Your task to perform on an android device: open app "Speedtest by Ookla" (install if not already installed) Image 0: 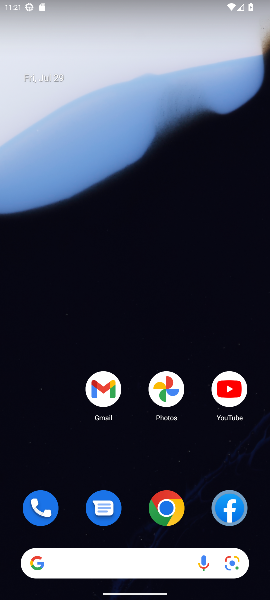
Step 0: drag from (93, 552) to (90, 96)
Your task to perform on an android device: open app "Speedtest by Ookla" (install if not already installed) Image 1: 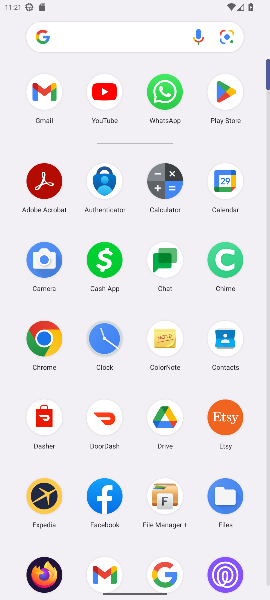
Step 1: click (223, 87)
Your task to perform on an android device: open app "Speedtest by Ookla" (install if not already installed) Image 2: 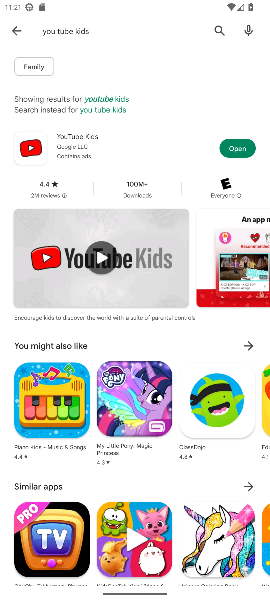
Step 2: click (216, 30)
Your task to perform on an android device: open app "Speedtest by Ookla" (install if not already installed) Image 3: 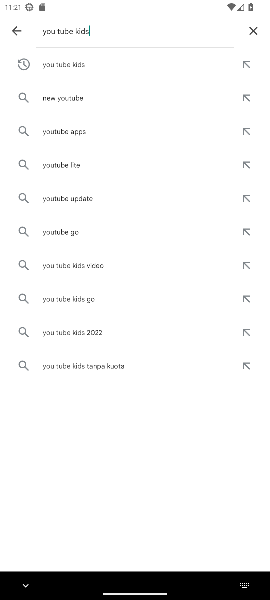
Step 3: click (250, 26)
Your task to perform on an android device: open app "Speedtest by Ookla" (install if not already installed) Image 4: 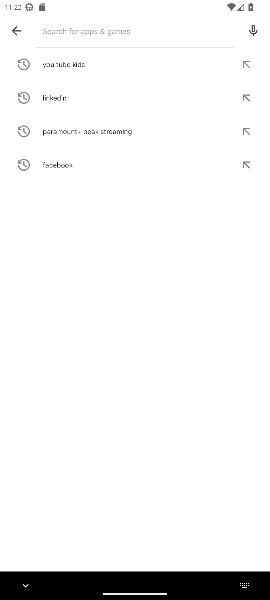
Step 4: type "speedtest by ookla"
Your task to perform on an android device: open app "Speedtest by Ookla" (install if not already installed) Image 5: 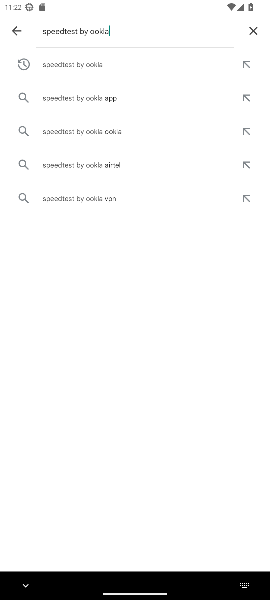
Step 5: click (157, 62)
Your task to perform on an android device: open app "Speedtest by Ookla" (install if not already installed) Image 6: 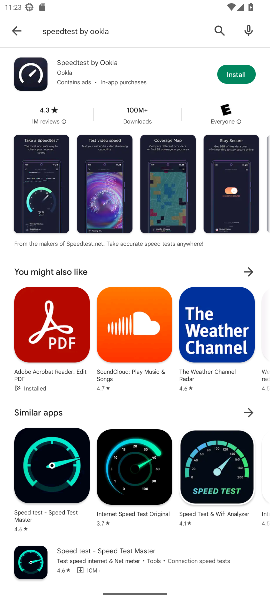
Step 6: click (239, 71)
Your task to perform on an android device: open app "Speedtest by Ookla" (install if not already installed) Image 7: 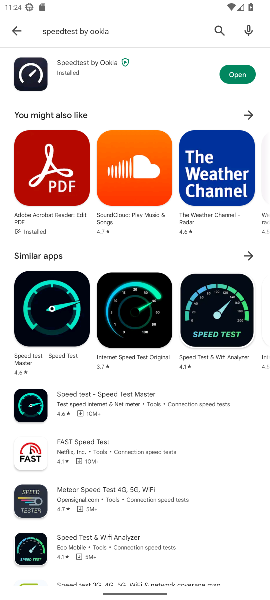
Step 7: click (230, 74)
Your task to perform on an android device: open app "Speedtest by Ookla" (install if not already installed) Image 8: 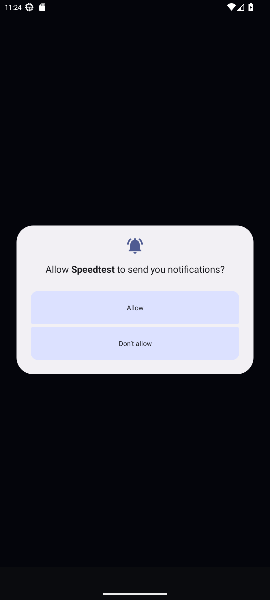
Step 8: task complete